Your task to perform on an android device: Open the map Image 0: 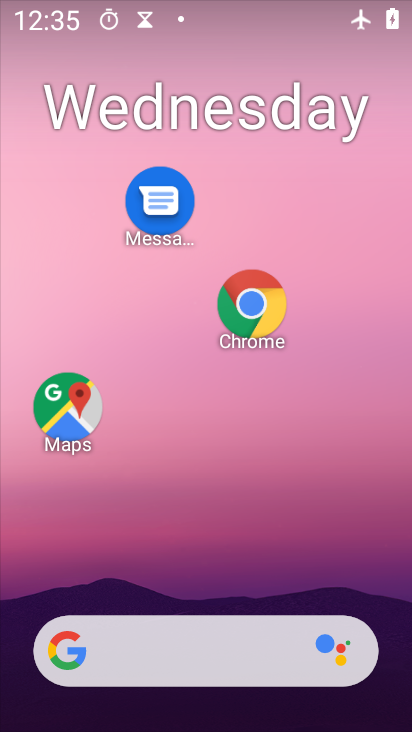
Step 0: drag from (298, 513) to (323, 219)
Your task to perform on an android device: Open the map Image 1: 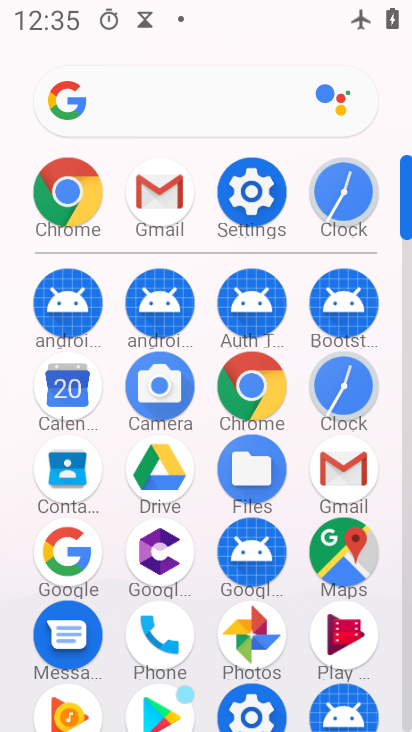
Step 1: click (339, 566)
Your task to perform on an android device: Open the map Image 2: 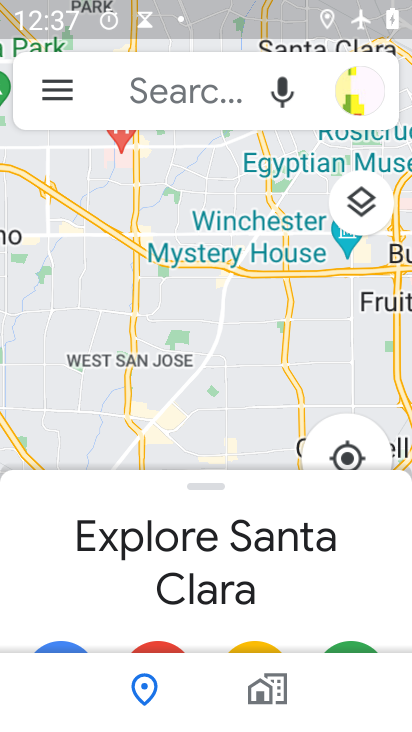
Step 2: task complete